Your task to perform on an android device: see sites visited before in the chrome app Image 0: 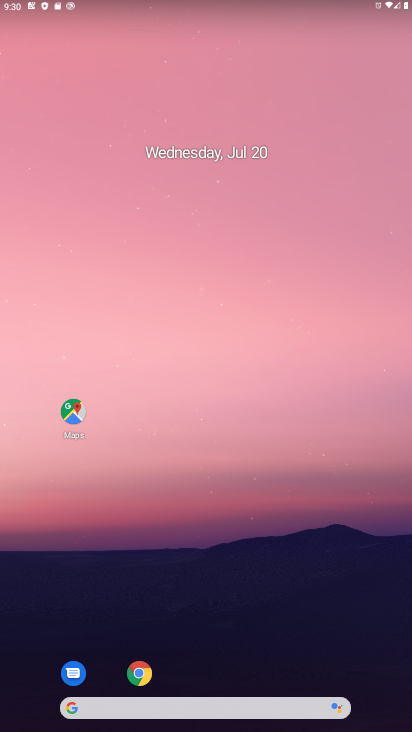
Step 0: drag from (232, 726) to (224, 222)
Your task to perform on an android device: see sites visited before in the chrome app Image 1: 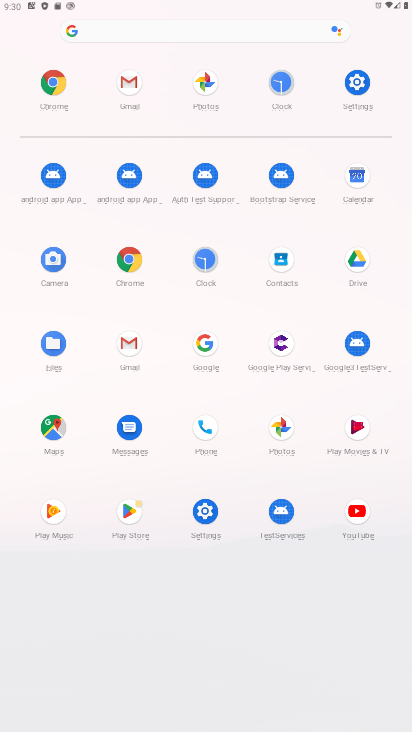
Step 1: click (132, 255)
Your task to perform on an android device: see sites visited before in the chrome app Image 2: 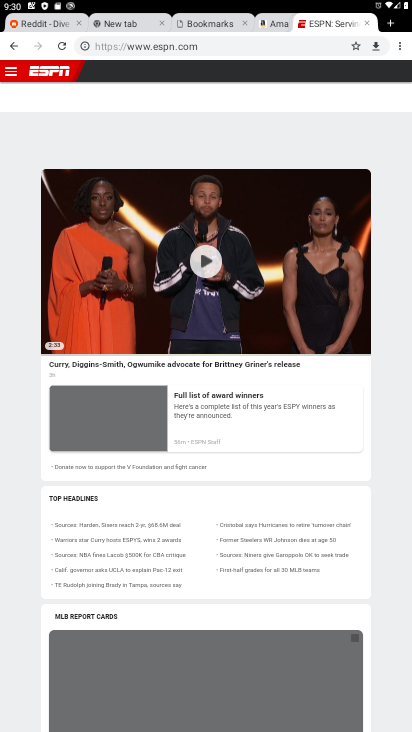
Step 2: click (400, 46)
Your task to perform on an android device: see sites visited before in the chrome app Image 3: 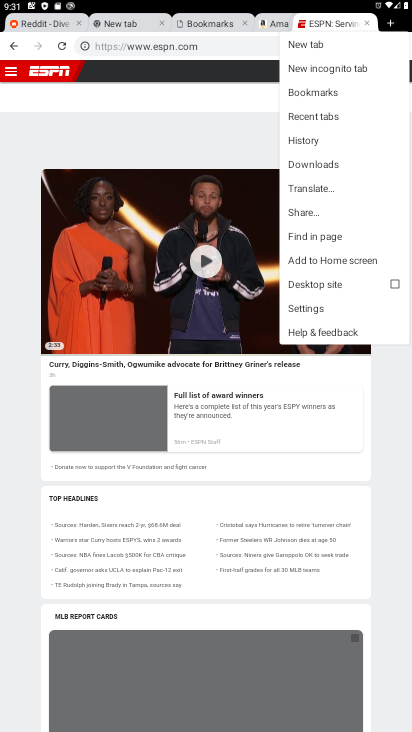
Step 3: click (309, 111)
Your task to perform on an android device: see sites visited before in the chrome app Image 4: 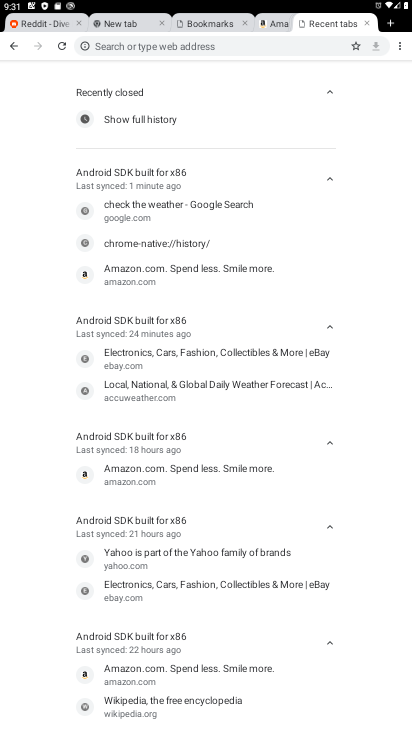
Step 4: task complete